Your task to perform on an android device: Open the stopwatch Image 0: 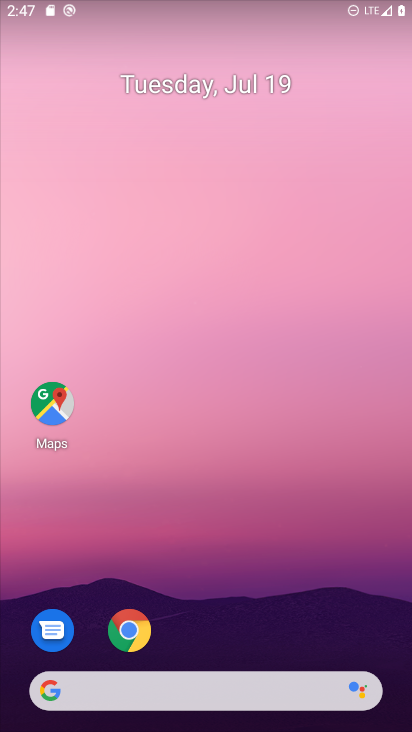
Step 0: drag from (370, 639) to (317, 114)
Your task to perform on an android device: Open the stopwatch Image 1: 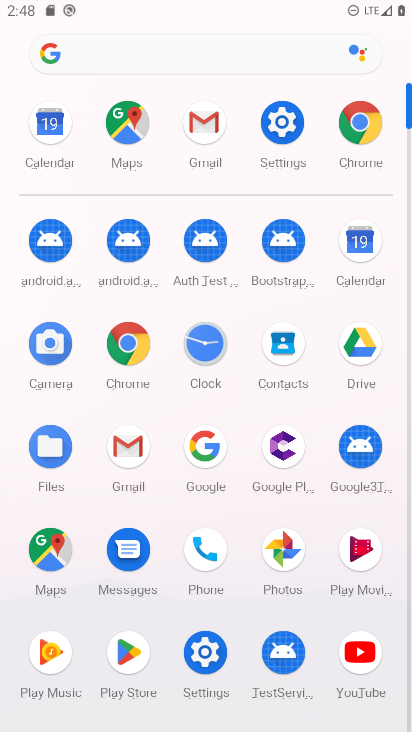
Step 1: click (205, 344)
Your task to perform on an android device: Open the stopwatch Image 2: 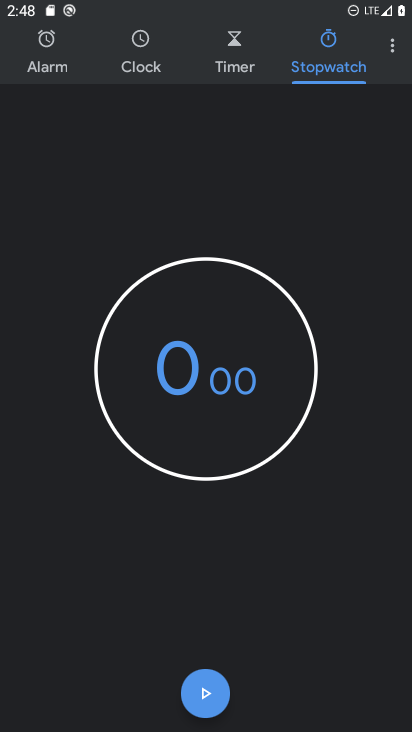
Step 2: task complete